Your task to perform on an android device: toggle sleep mode Image 0: 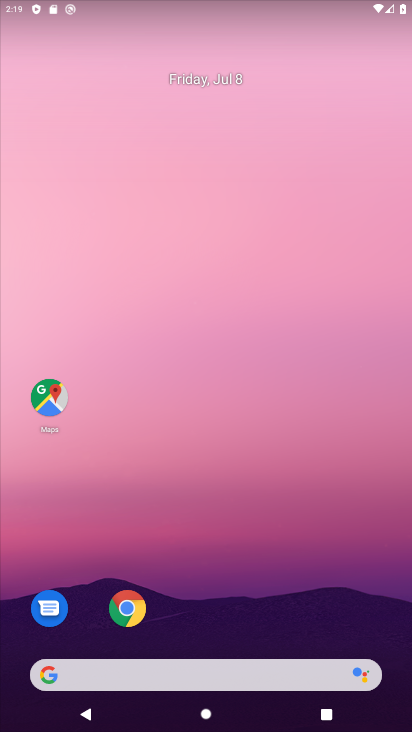
Step 0: drag from (177, 662) to (270, 172)
Your task to perform on an android device: toggle sleep mode Image 1: 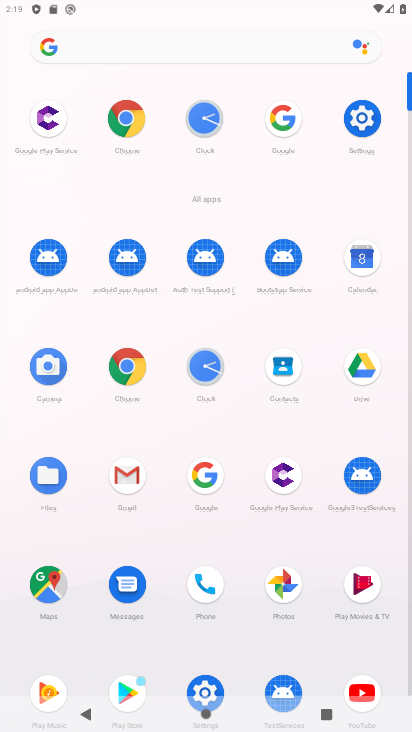
Step 1: click (210, 247)
Your task to perform on an android device: toggle sleep mode Image 2: 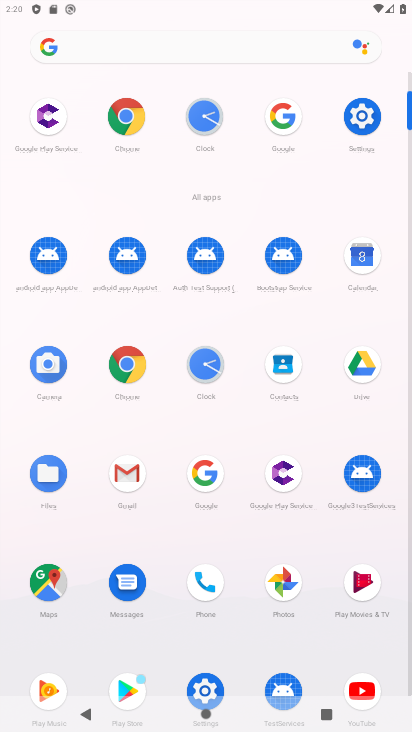
Step 2: click (205, 679)
Your task to perform on an android device: toggle sleep mode Image 3: 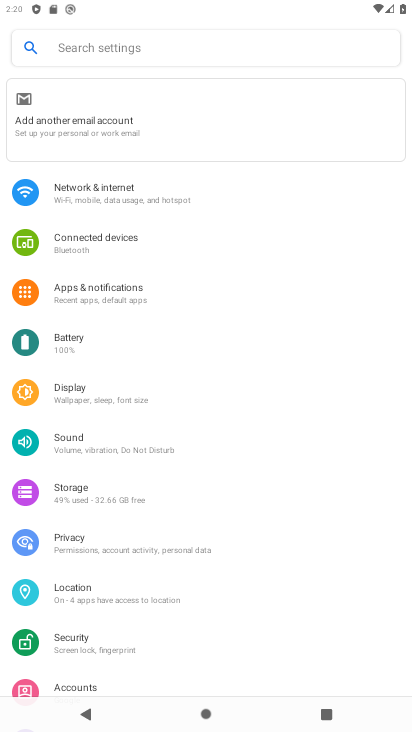
Step 3: click (84, 401)
Your task to perform on an android device: toggle sleep mode Image 4: 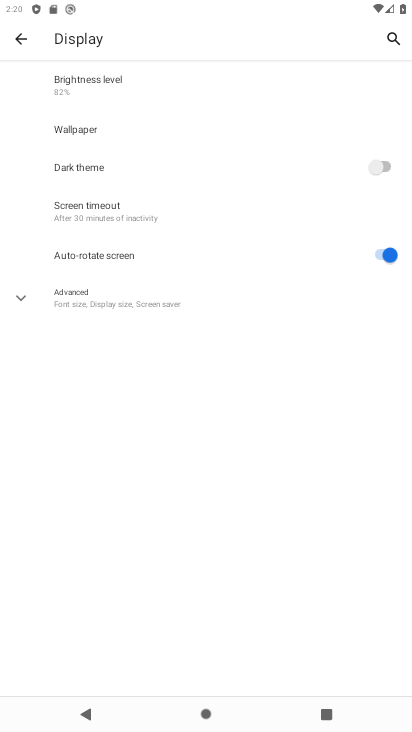
Step 4: click (181, 310)
Your task to perform on an android device: toggle sleep mode Image 5: 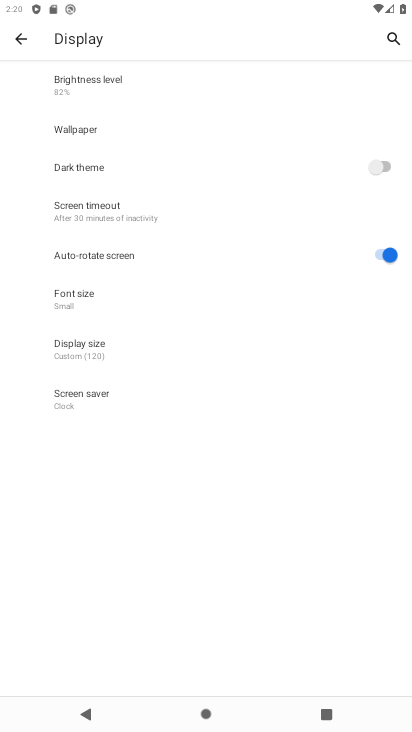
Step 5: task complete